Your task to perform on an android device: When is my next appointment? Image 0: 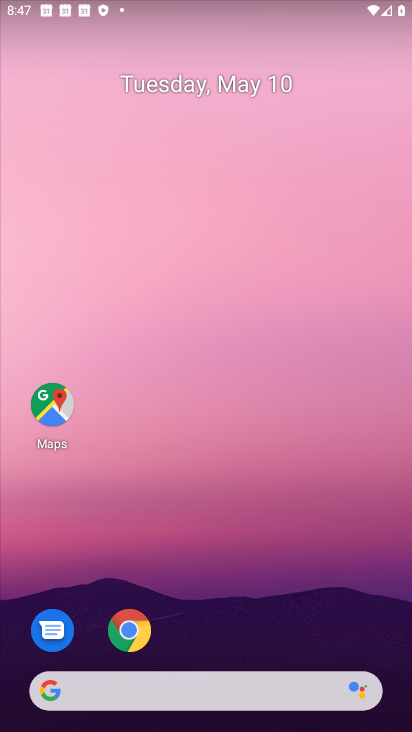
Step 0: drag from (176, 724) to (271, 15)
Your task to perform on an android device: When is my next appointment? Image 1: 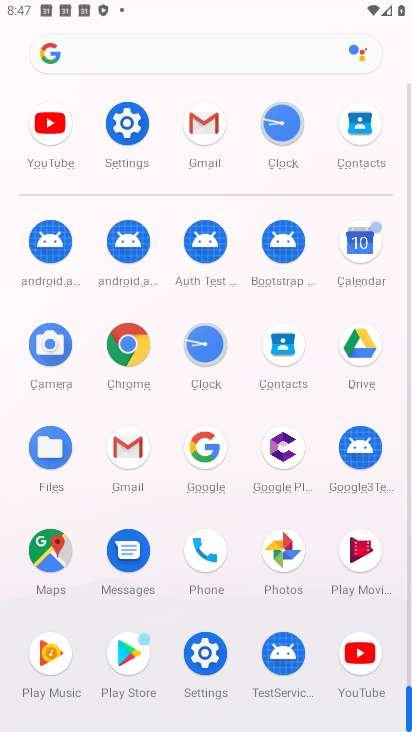
Step 1: click (366, 246)
Your task to perform on an android device: When is my next appointment? Image 2: 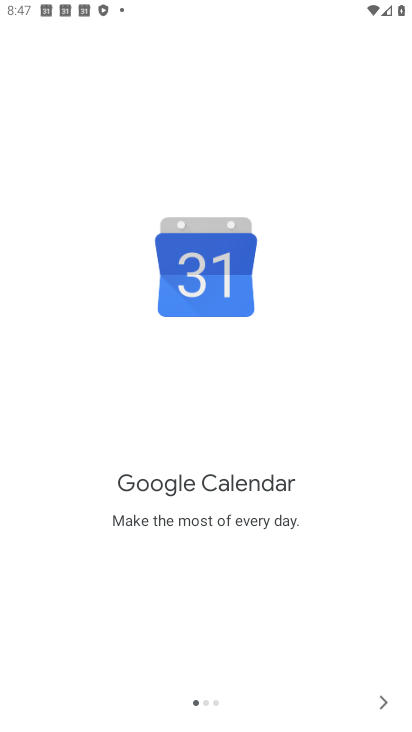
Step 2: click (384, 694)
Your task to perform on an android device: When is my next appointment? Image 3: 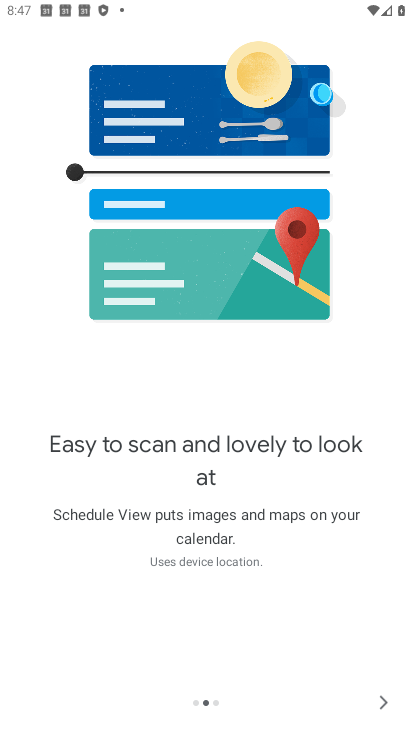
Step 3: click (384, 694)
Your task to perform on an android device: When is my next appointment? Image 4: 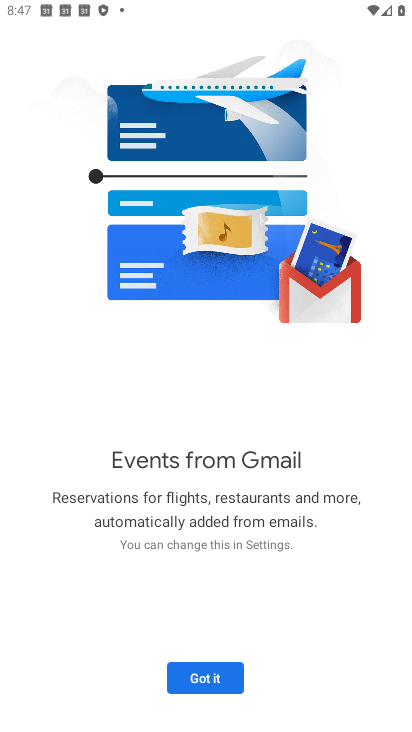
Step 4: click (193, 681)
Your task to perform on an android device: When is my next appointment? Image 5: 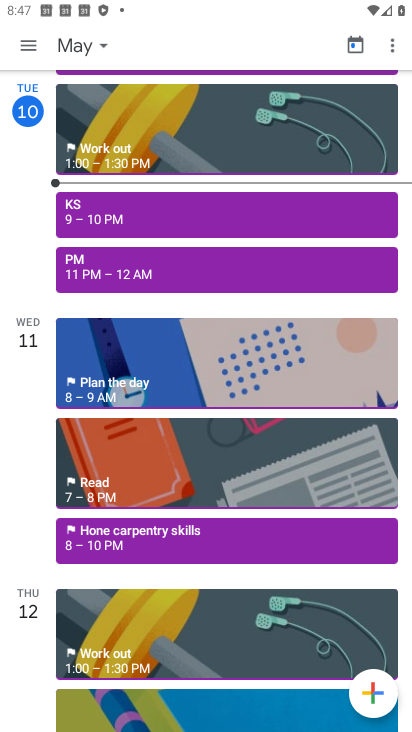
Step 5: task complete